Your task to perform on an android device: turn on priority inbox in the gmail app Image 0: 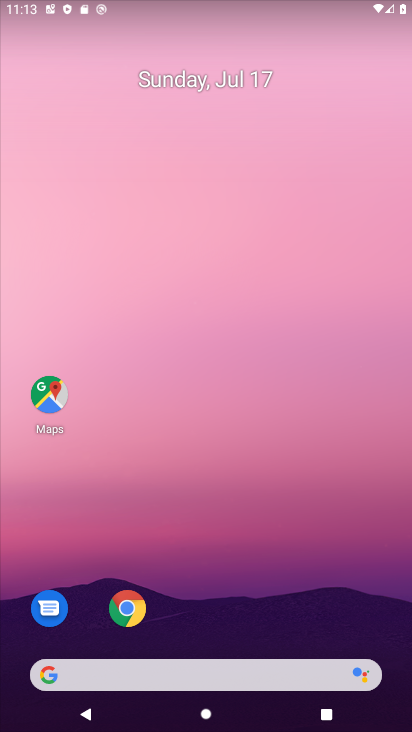
Step 0: drag from (222, 640) to (158, 1)
Your task to perform on an android device: turn on priority inbox in the gmail app Image 1: 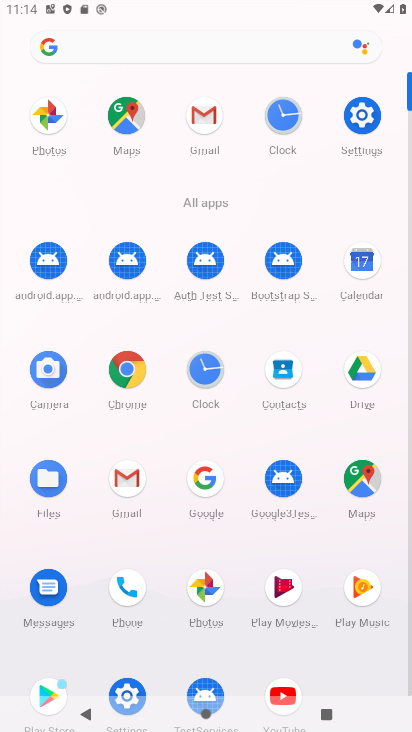
Step 1: click (133, 489)
Your task to perform on an android device: turn on priority inbox in the gmail app Image 2: 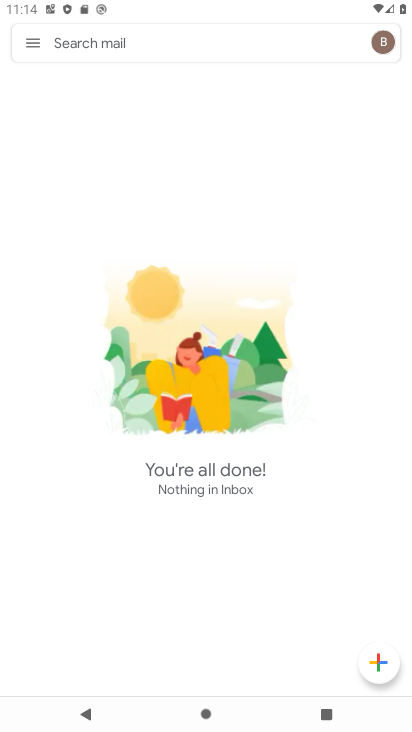
Step 2: click (45, 36)
Your task to perform on an android device: turn on priority inbox in the gmail app Image 3: 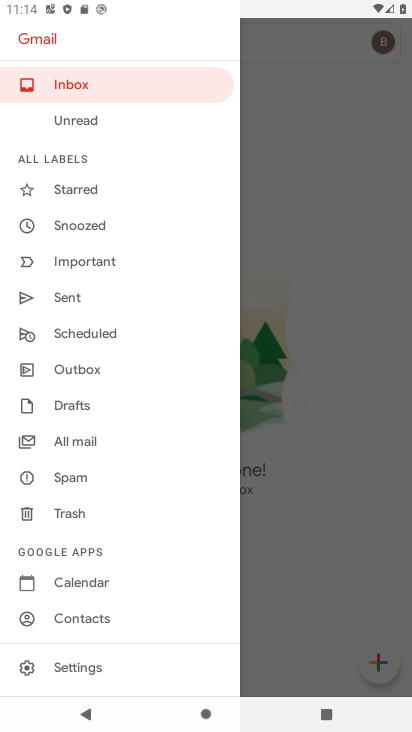
Step 3: click (94, 664)
Your task to perform on an android device: turn on priority inbox in the gmail app Image 4: 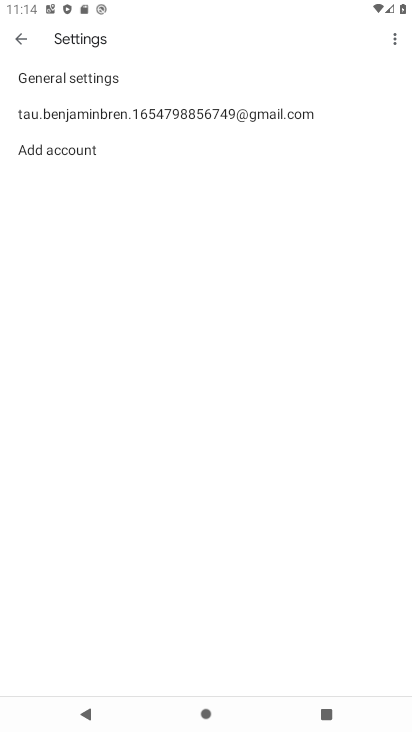
Step 4: click (43, 115)
Your task to perform on an android device: turn on priority inbox in the gmail app Image 5: 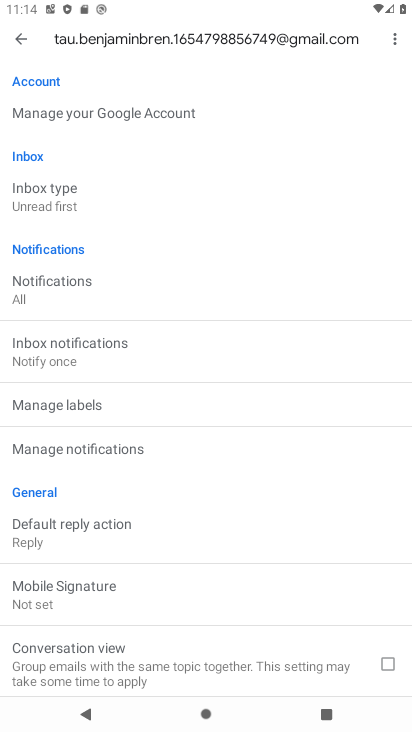
Step 5: click (67, 200)
Your task to perform on an android device: turn on priority inbox in the gmail app Image 6: 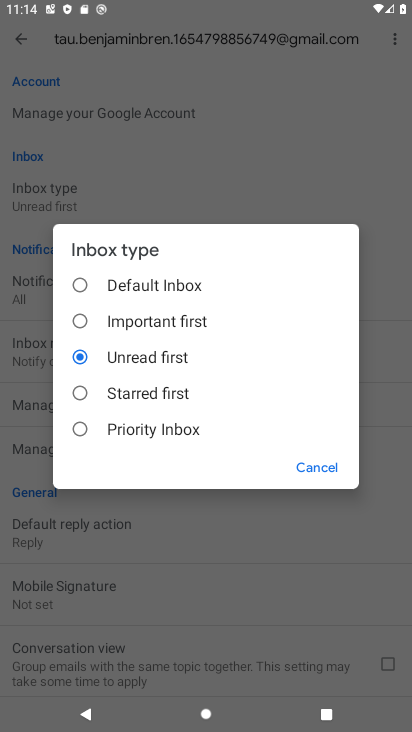
Step 6: click (110, 440)
Your task to perform on an android device: turn on priority inbox in the gmail app Image 7: 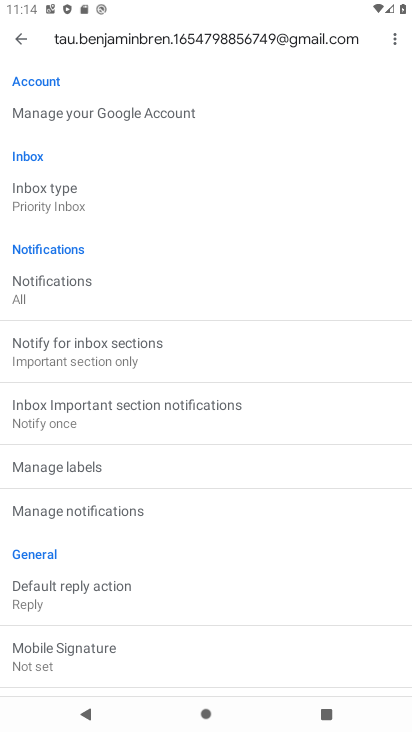
Step 7: task complete